Your task to perform on an android device: Search for Italian restaurants on Maps Image 0: 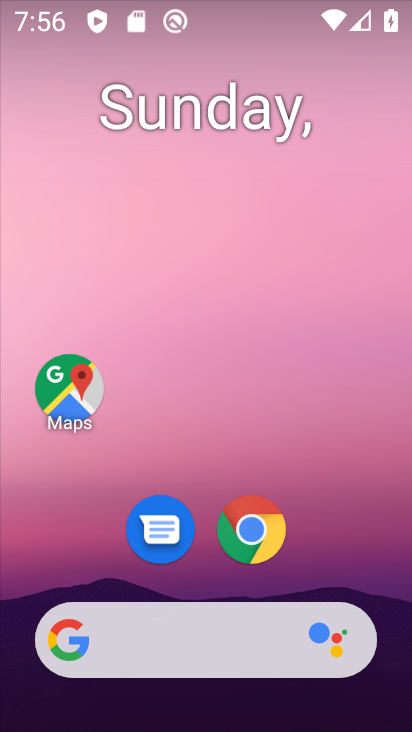
Step 0: drag from (361, 529) to (407, 97)
Your task to perform on an android device: Search for Italian restaurants on Maps Image 1: 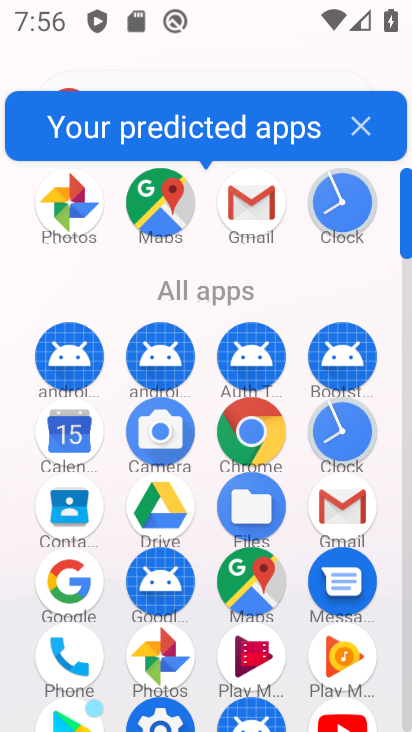
Step 1: click (242, 594)
Your task to perform on an android device: Search for Italian restaurants on Maps Image 2: 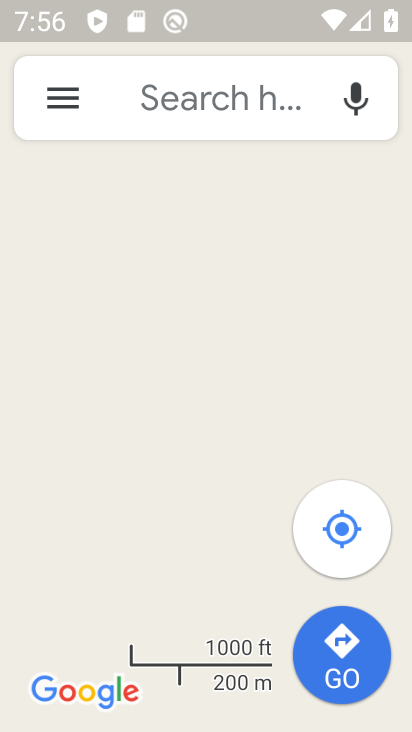
Step 2: click (174, 80)
Your task to perform on an android device: Search for Italian restaurants on Maps Image 3: 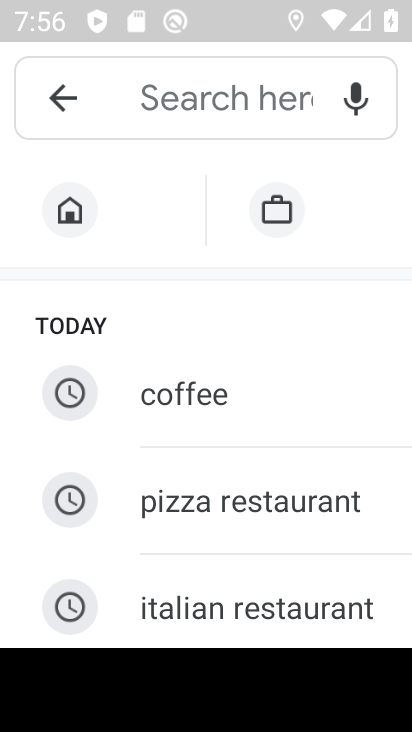
Step 3: type "italian restaurants "
Your task to perform on an android device: Search for Italian restaurants on Maps Image 4: 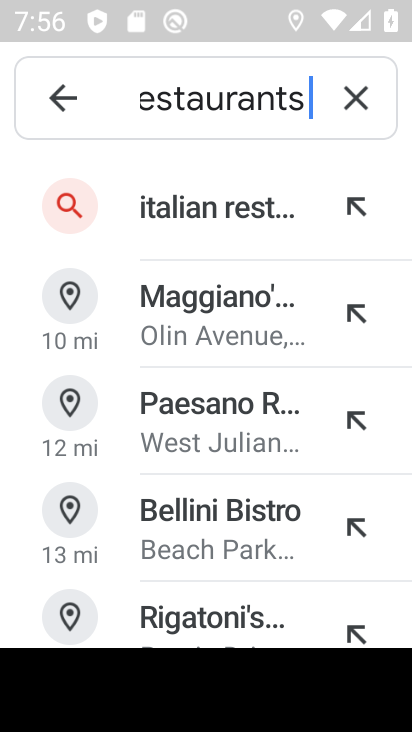
Step 4: click (173, 211)
Your task to perform on an android device: Search for Italian restaurants on Maps Image 5: 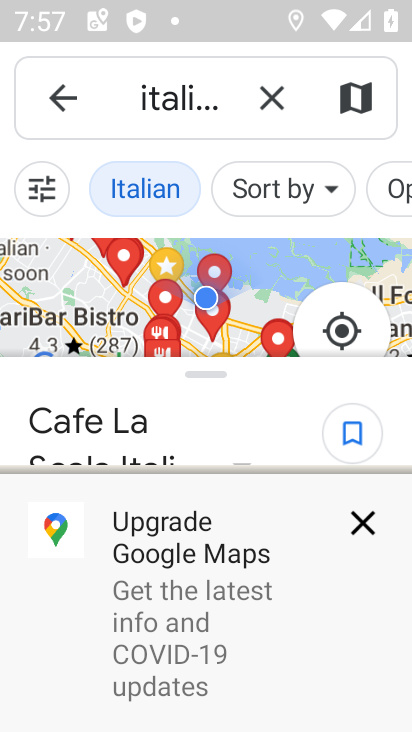
Step 5: click (368, 530)
Your task to perform on an android device: Search for Italian restaurants on Maps Image 6: 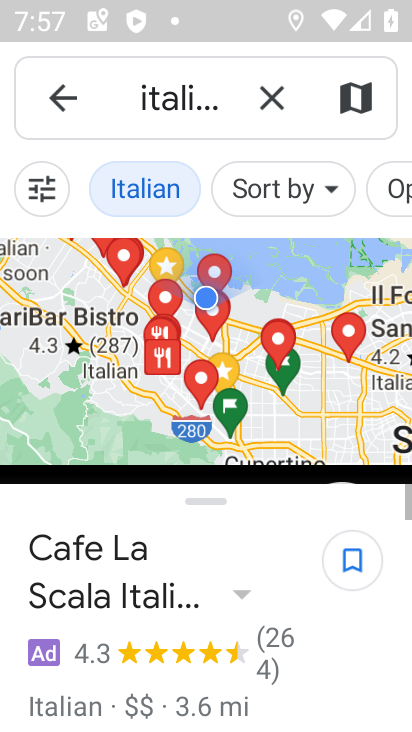
Step 6: task complete